Your task to perform on an android device: Check the weather Image 0: 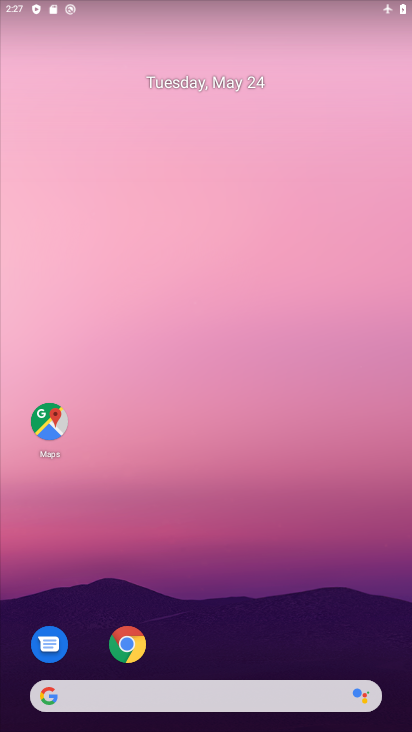
Step 0: drag from (232, 593) to (223, 93)
Your task to perform on an android device: Check the weather Image 1: 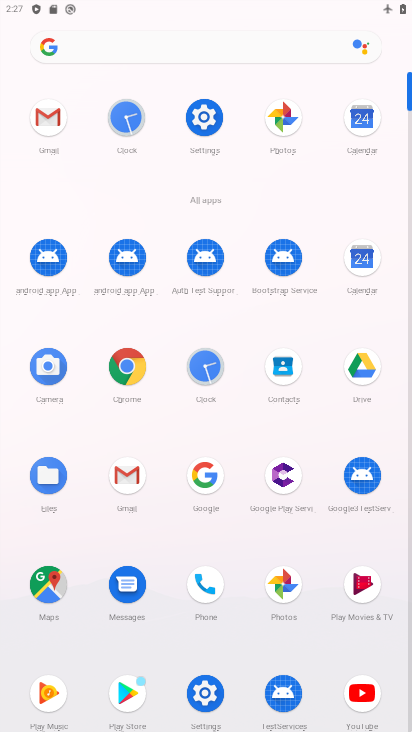
Step 1: click (194, 490)
Your task to perform on an android device: Check the weather Image 2: 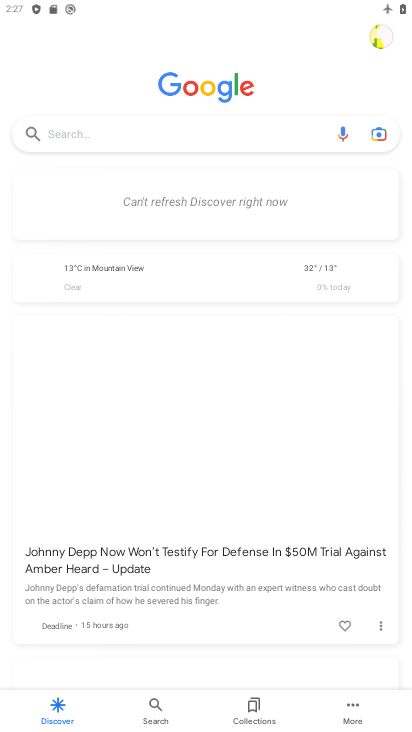
Step 2: click (149, 139)
Your task to perform on an android device: Check the weather Image 3: 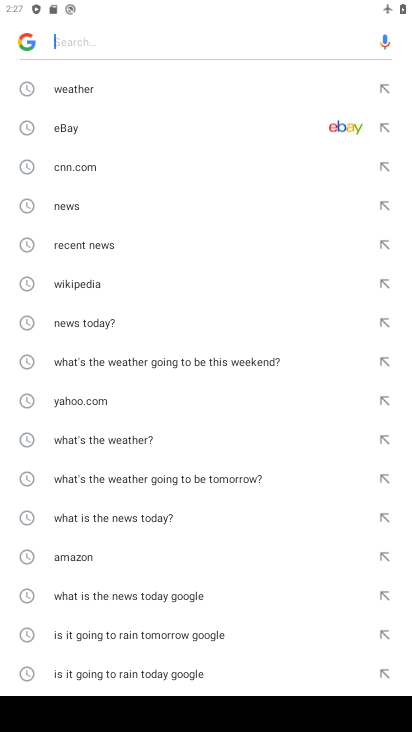
Step 3: click (92, 96)
Your task to perform on an android device: Check the weather Image 4: 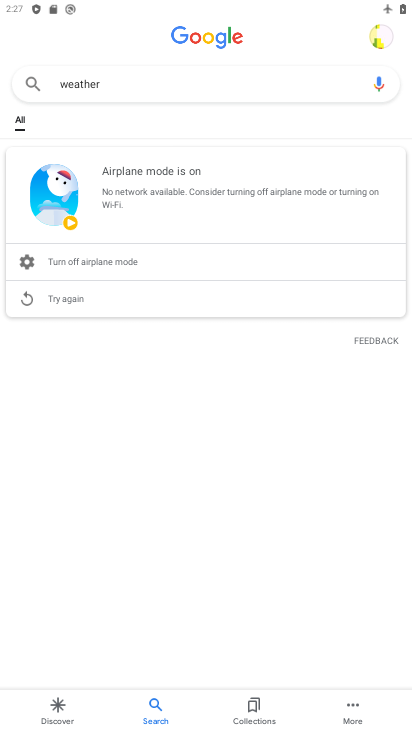
Step 4: task complete